Your task to perform on an android device: toggle pop-ups in chrome Image 0: 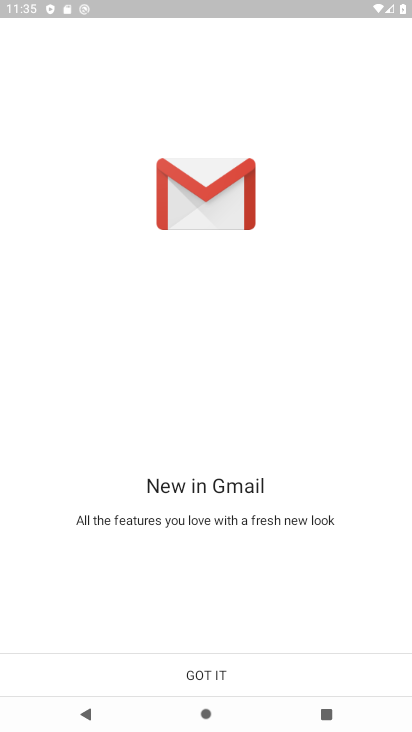
Step 0: press home button
Your task to perform on an android device: toggle pop-ups in chrome Image 1: 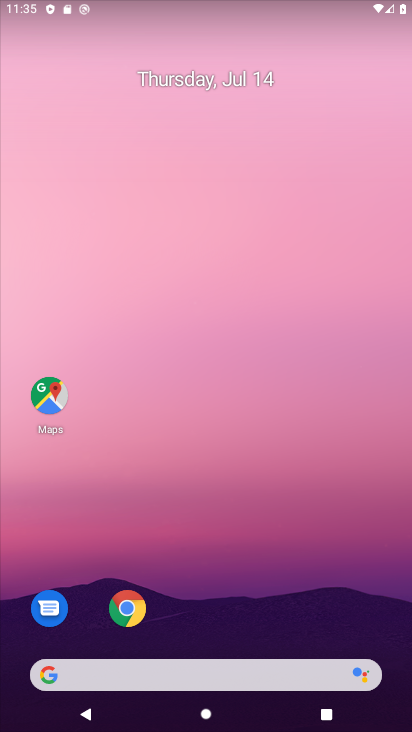
Step 1: click (122, 610)
Your task to perform on an android device: toggle pop-ups in chrome Image 2: 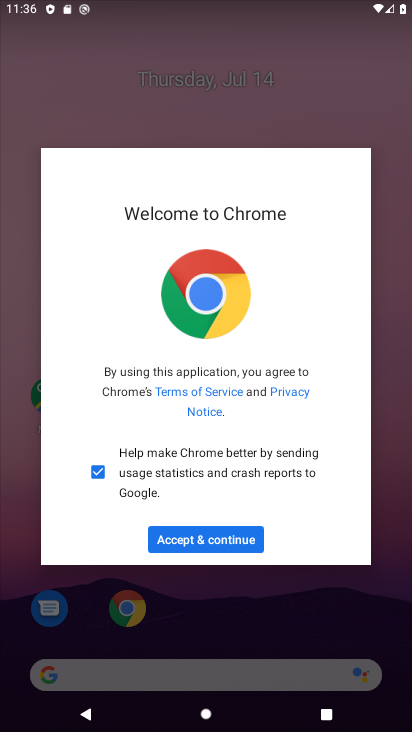
Step 2: click (209, 538)
Your task to perform on an android device: toggle pop-ups in chrome Image 3: 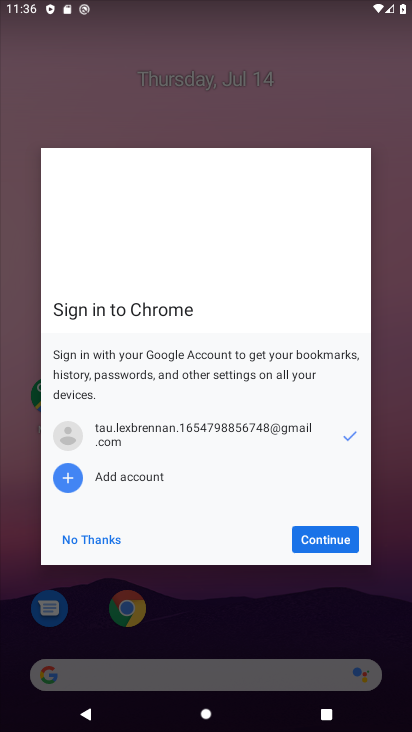
Step 3: click (315, 542)
Your task to perform on an android device: toggle pop-ups in chrome Image 4: 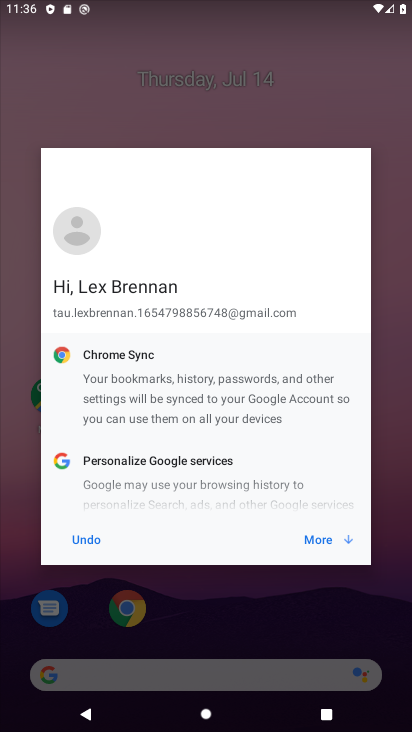
Step 4: click (315, 542)
Your task to perform on an android device: toggle pop-ups in chrome Image 5: 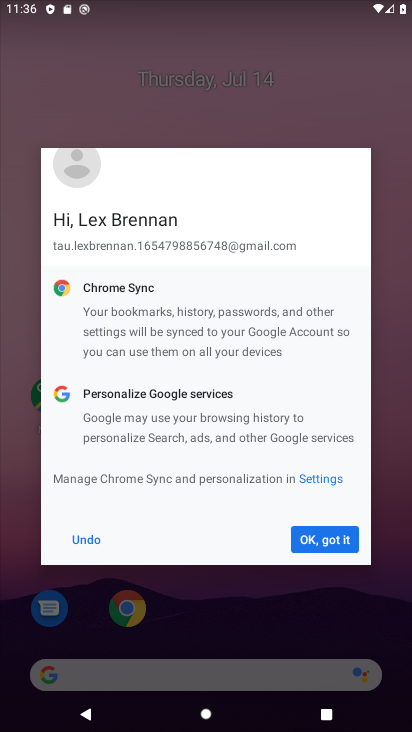
Step 5: click (315, 542)
Your task to perform on an android device: toggle pop-ups in chrome Image 6: 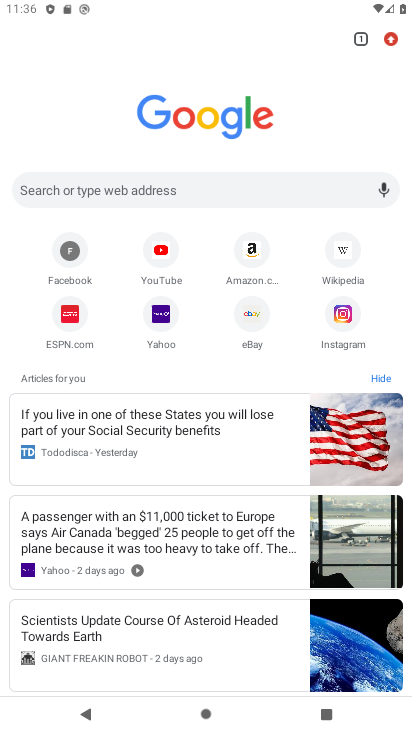
Step 6: click (392, 36)
Your task to perform on an android device: toggle pop-ups in chrome Image 7: 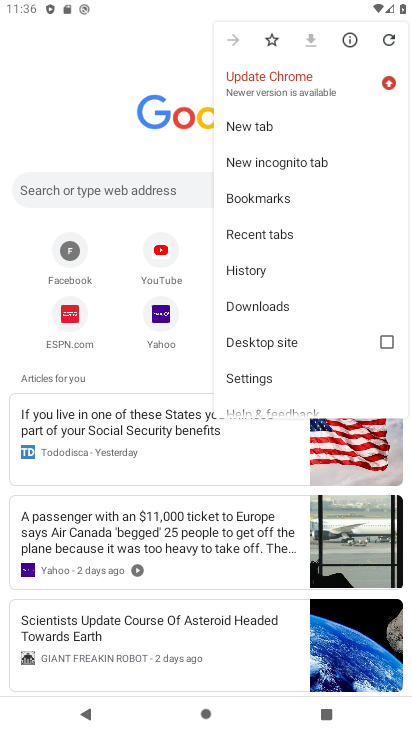
Step 7: click (255, 378)
Your task to perform on an android device: toggle pop-ups in chrome Image 8: 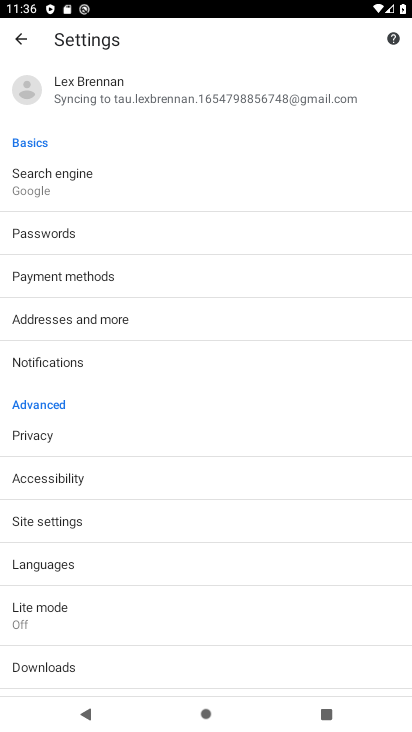
Step 8: click (40, 523)
Your task to perform on an android device: toggle pop-ups in chrome Image 9: 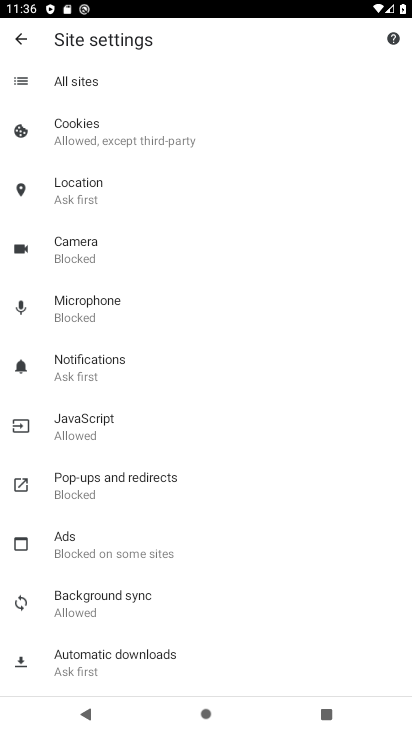
Step 9: click (75, 484)
Your task to perform on an android device: toggle pop-ups in chrome Image 10: 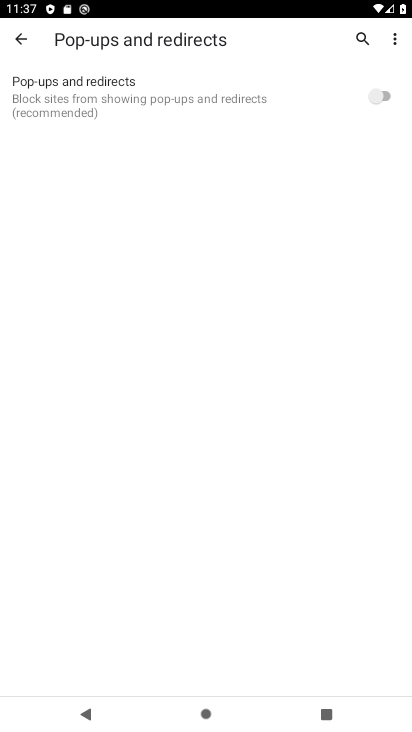
Step 10: click (388, 96)
Your task to perform on an android device: toggle pop-ups in chrome Image 11: 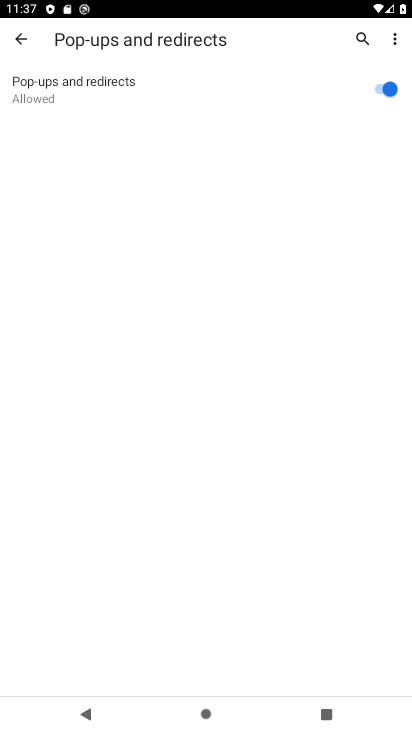
Step 11: task complete